Your task to perform on an android device: toggle wifi Image 0: 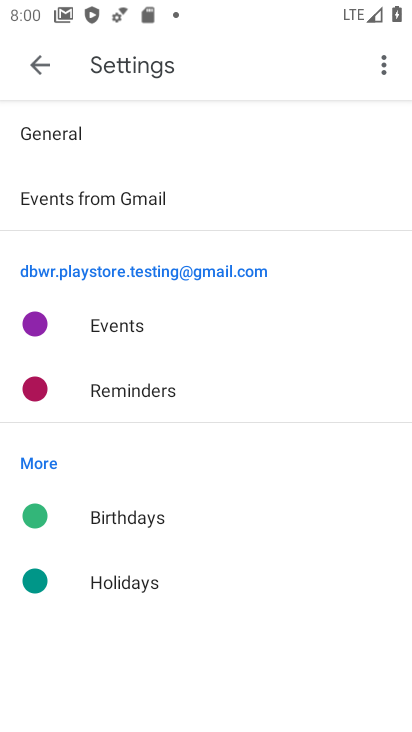
Step 0: press home button
Your task to perform on an android device: toggle wifi Image 1: 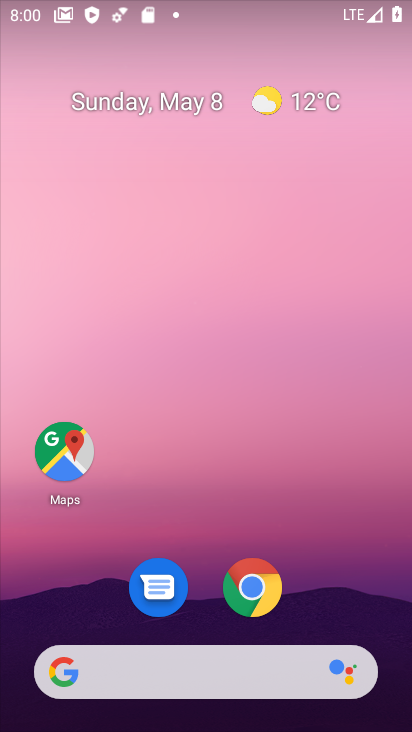
Step 1: drag from (223, 515) to (267, 187)
Your task to perform on an android device: toggle wifi Image 2: 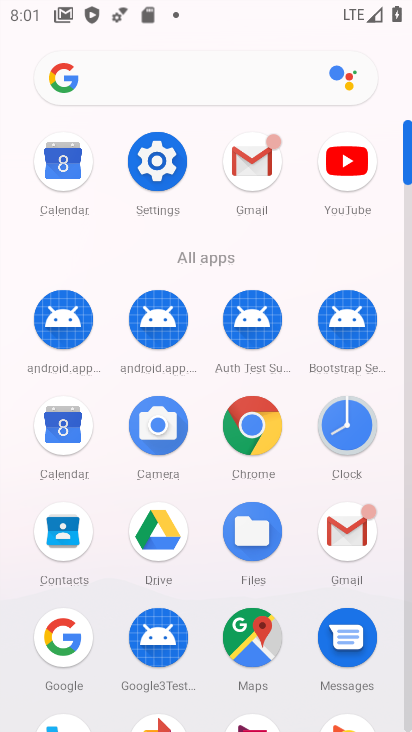
Step 2: click (153, 189)
Your task to perform on an android device: toggle wifi Image 3: 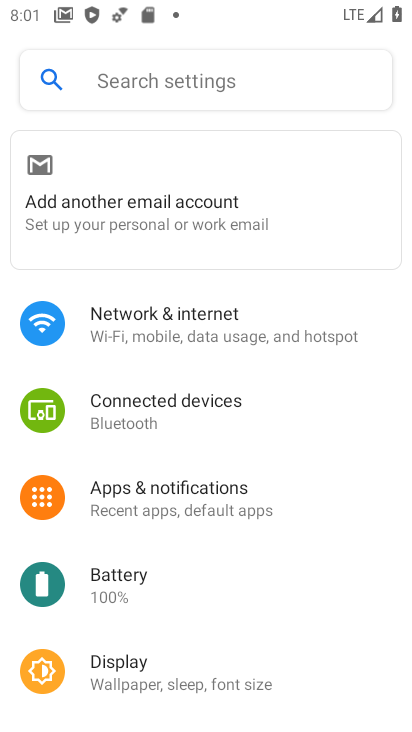
Step 3: click (174, 345)
Your task to perform on an android device: toggle wifi Image 4: 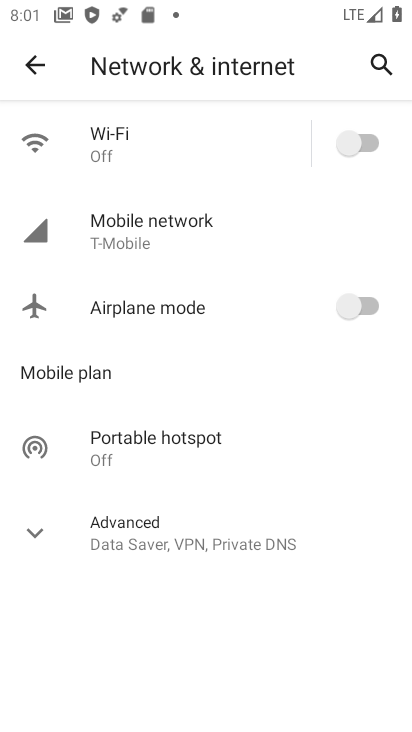
Step 4: click (341, 144)
Your task to perform on an android device: toggle wifi Image 5: 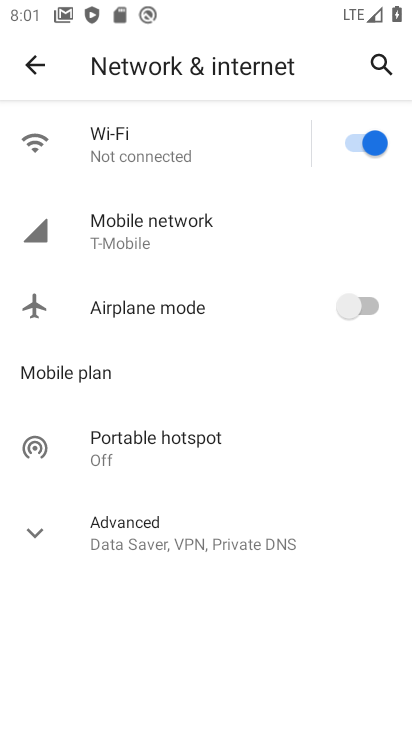
Step 5: task complete